Your task to perform on an android device: uninstall "Google News" Image 0: 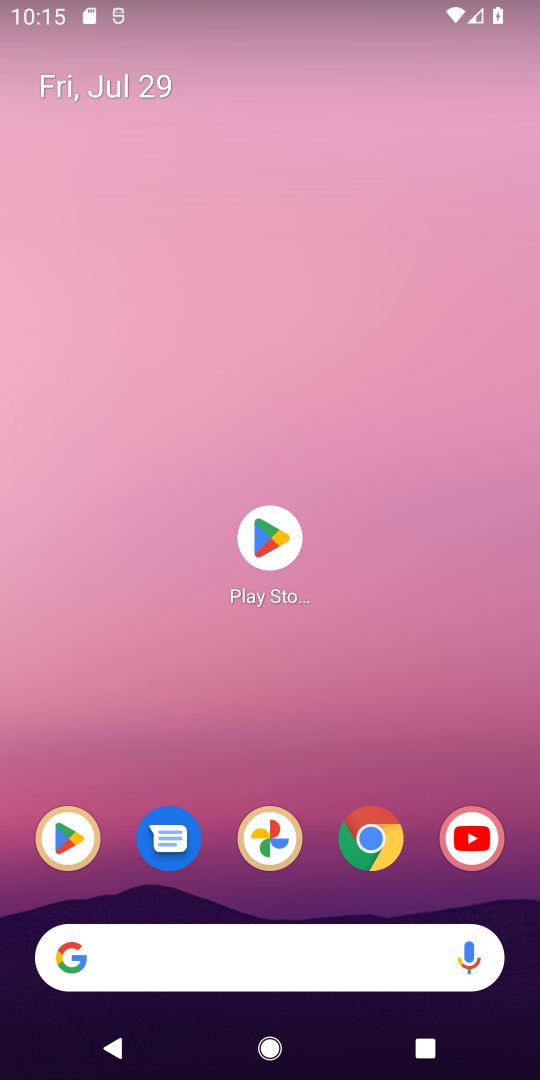
Step 0: press home button
Your task to perform on an android device: uninstall "Google News" Image 1: 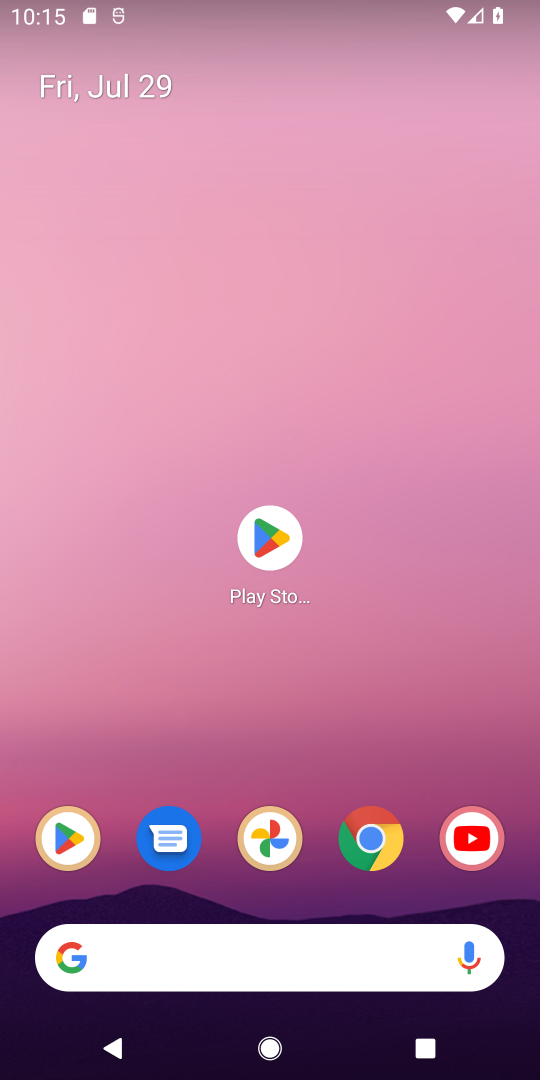
Step 1: click (258, 533)
Your task to perform on an android device: uninstall "Google News" Image 2: 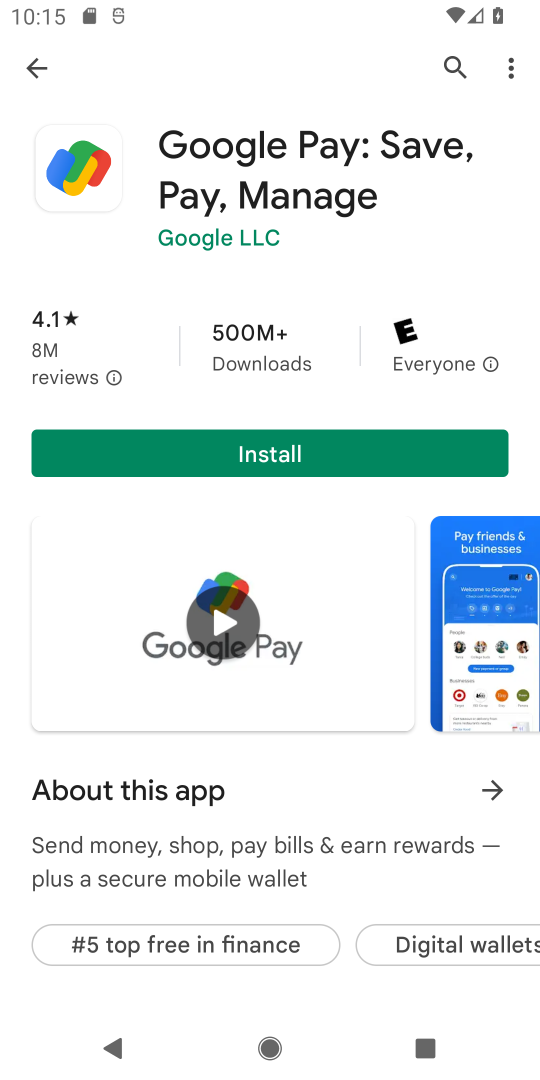
Step 2: click (441, 58)
Your task to perform on an android device: uninstall "Google News" Image 3: 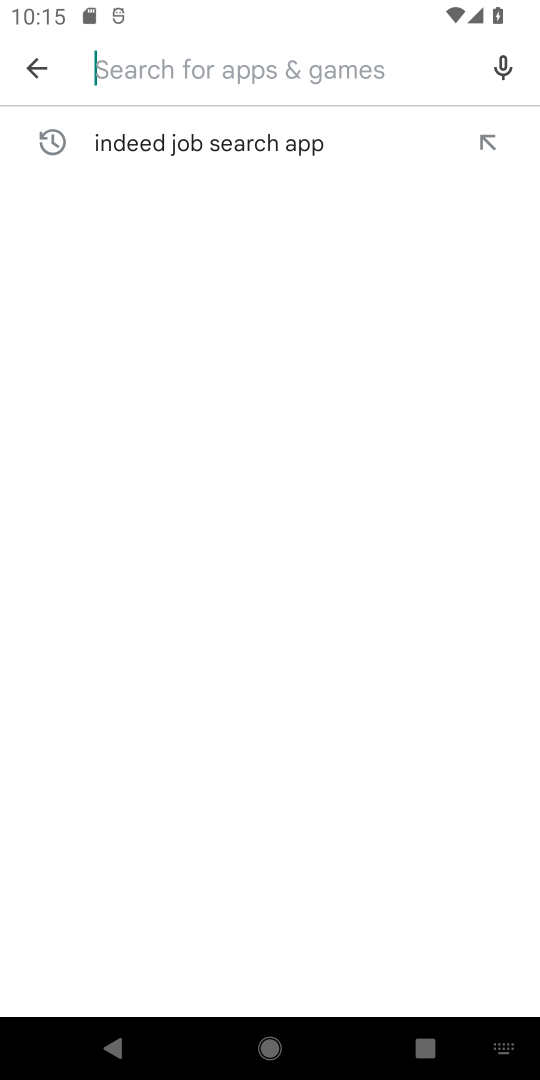
Step 3: type "Google News"
Your task to perform on an android device: uninstall "Google News" Image 4: 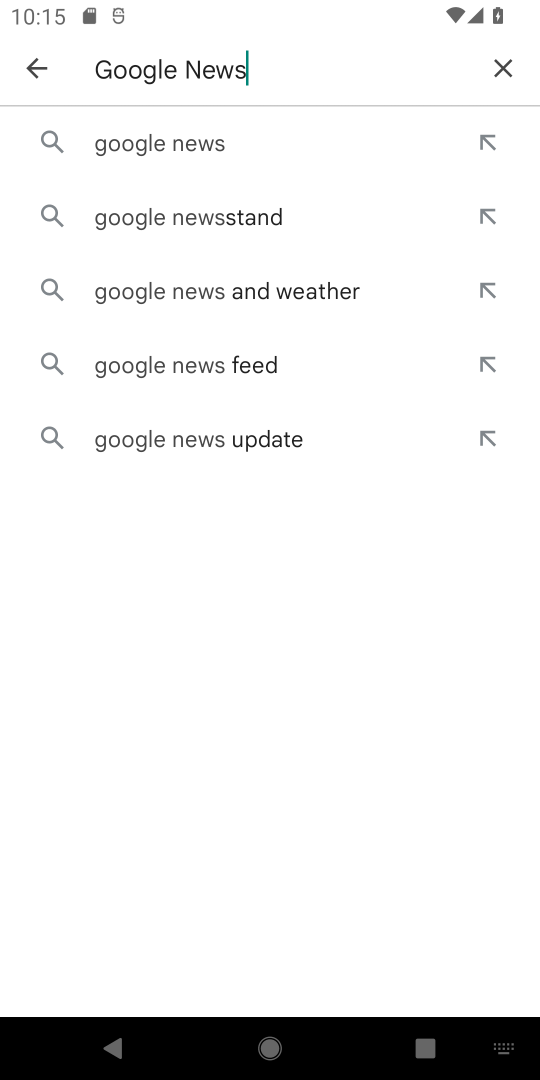
Step 4: click (124, 146)
Your task to perform on an android device: uninstall "Google News" Image 5: 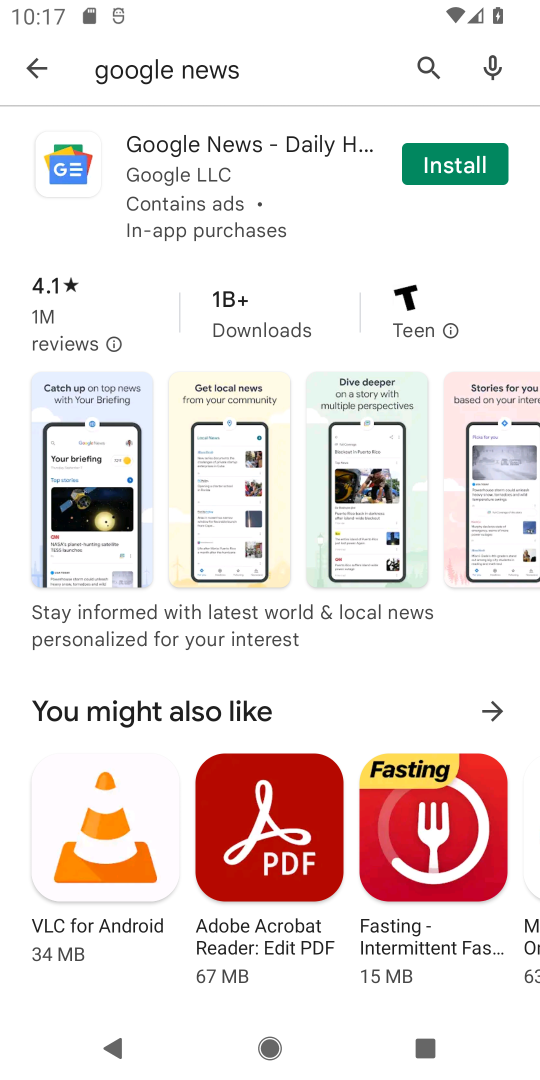
Step 5: task complete